Your task to perform on an android device: turn off javascript in the chrome app Image 0: 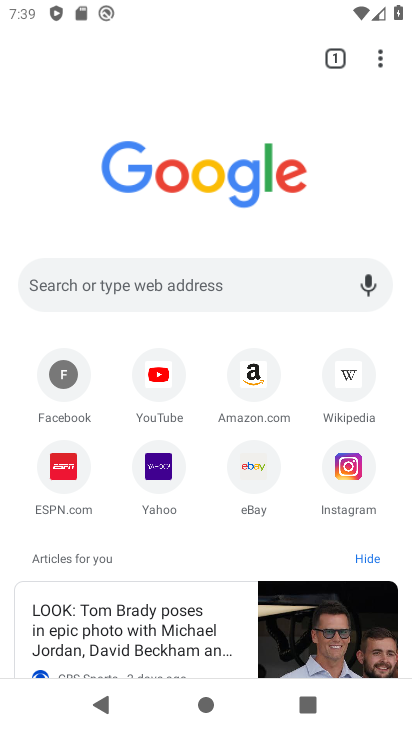
Step 0: drag from (382, 56) to (366, 333)
Your task to perform on an android device: turn off javascript in the chrome app Image 1: 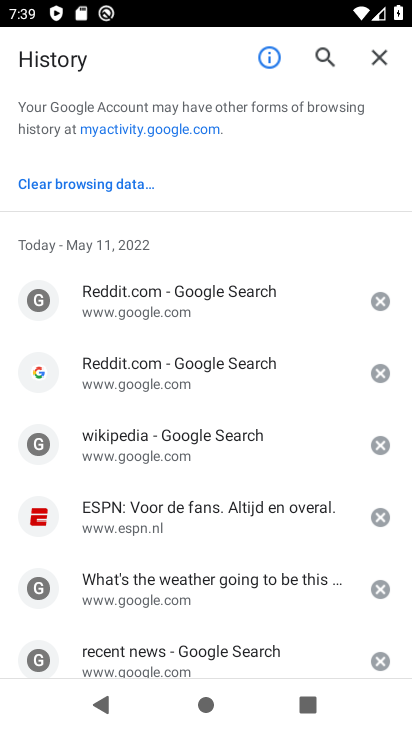
Step 1: click (381, 59)
Your task to perform on an android device: turn off javascript in the chrome app Image 2: 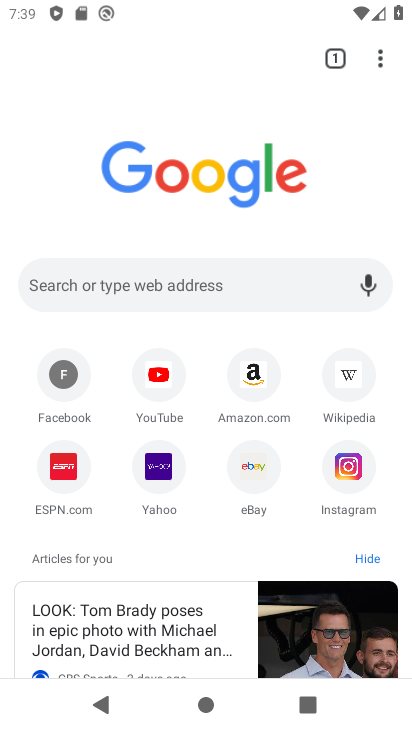
Step 2: click (386, 56)
Your task to perform on an android device: turn off javascript in the chrome app Image 3: 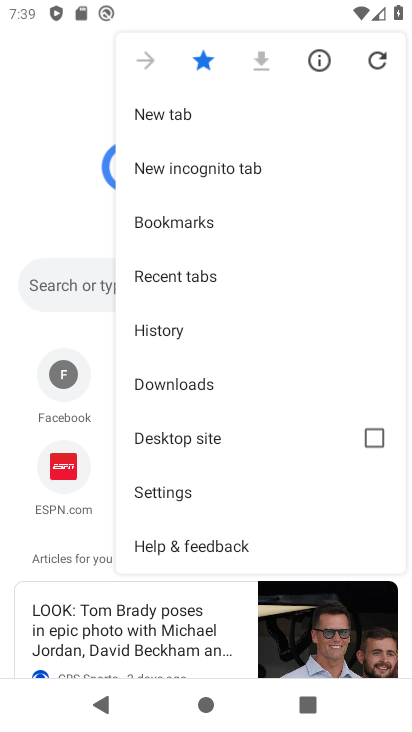
Step 3: click (169, 506)
Your task to perform on an android device: turn off javascript in the chrome app Image 4: 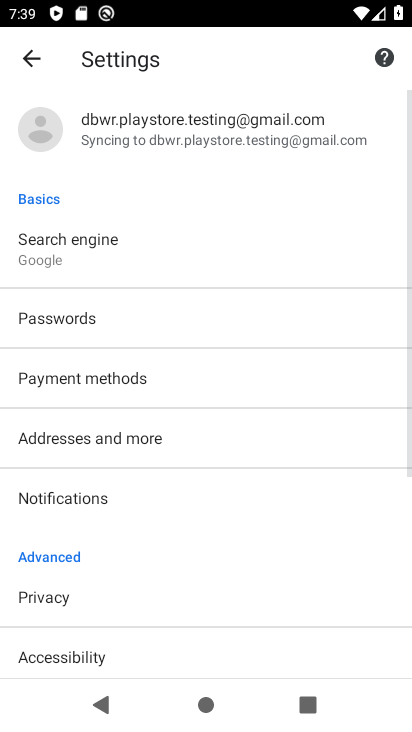
Step 4: drag from (308, 629) to (367, 199)
Your task to perform on an android device: turn off javascript in the chrome app Image 5: 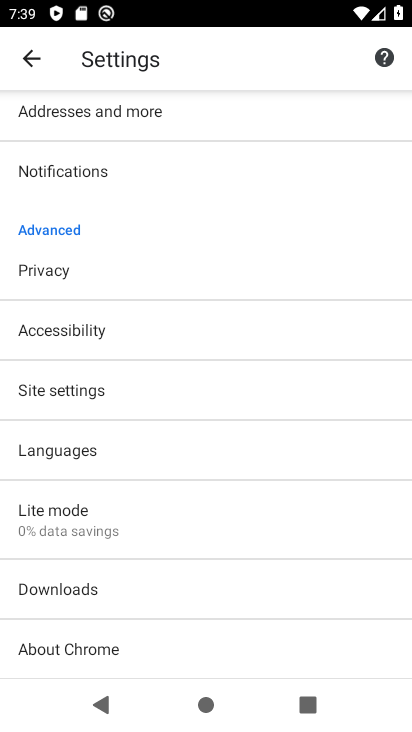
Step 5: click (119, 388)
Your task to perform on an android device: turn off javascript in the chrome app Image 6: 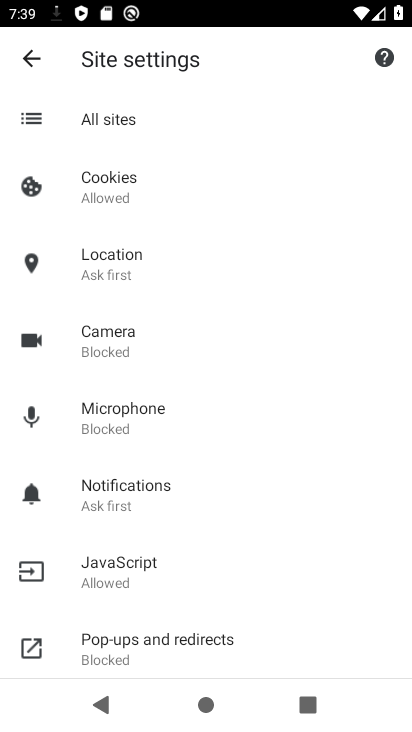
Step 6: click (142, 586)
Your task to perform on an android device: turn off javascript in the chrome app Image 7: 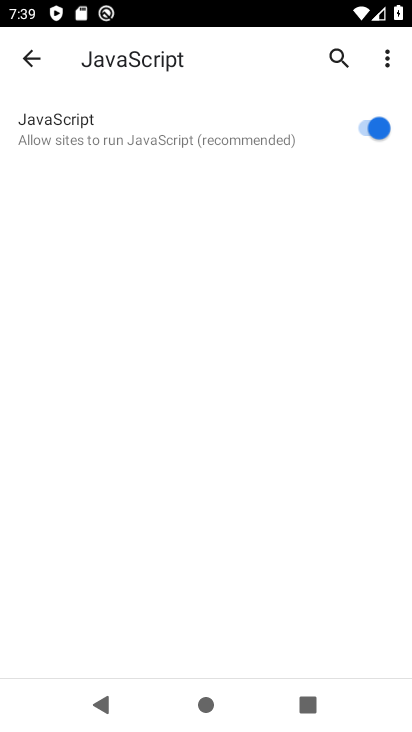
Step 7: click (385, 134)
Your task to perform on an android device: turn off javascript in the chrome app Image 8: 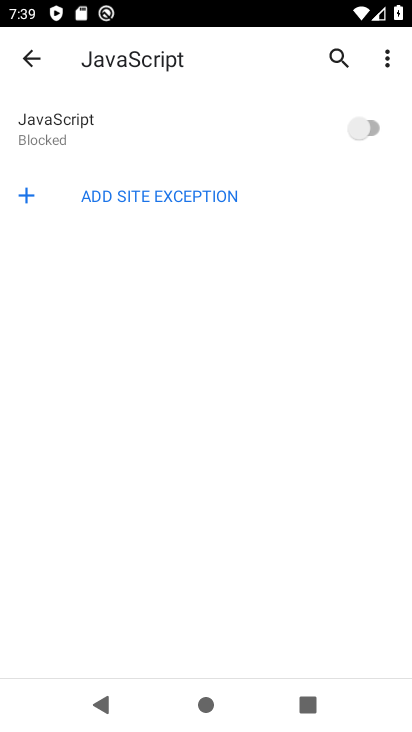
Step 8: task complete